Your task to perform on an android device: Open battery settings Image 0: 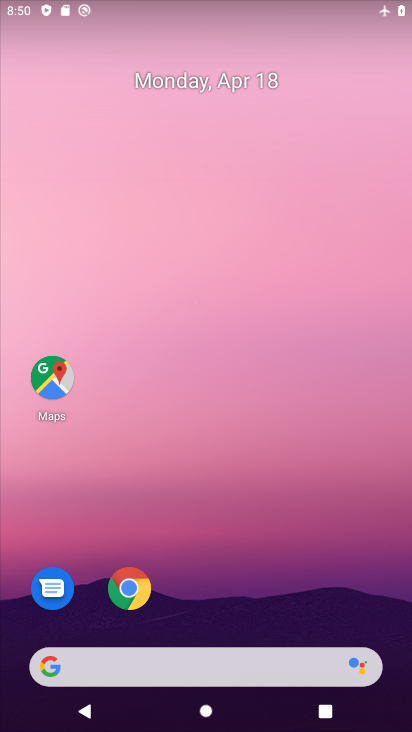
Step 0: drag from (240, 596) to (293, 208)
Your task to perform on an android device: Open battery settings Image 1: 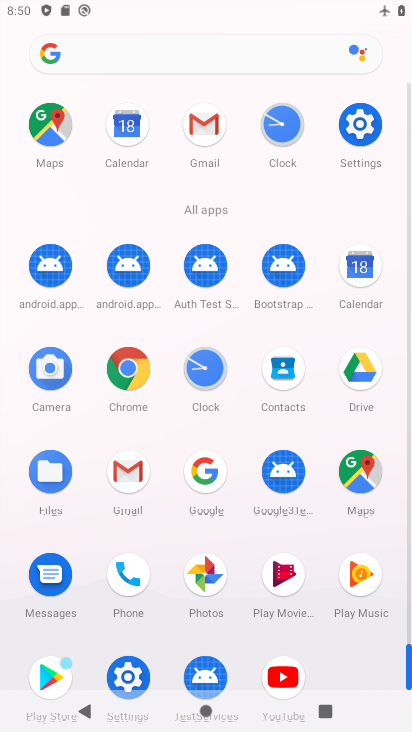
Step 1: click (368, 128)
Your task to perform on an android device: Open battery settings Image 2: 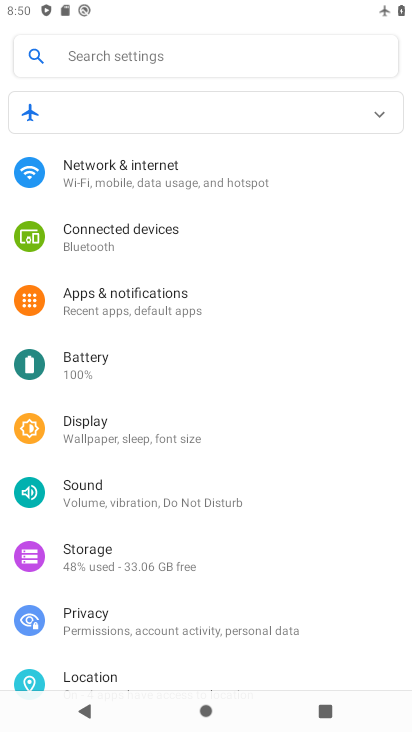
Step 2: click (112, 359)
Your task to perform on an android device: Open battery settings Image 3: 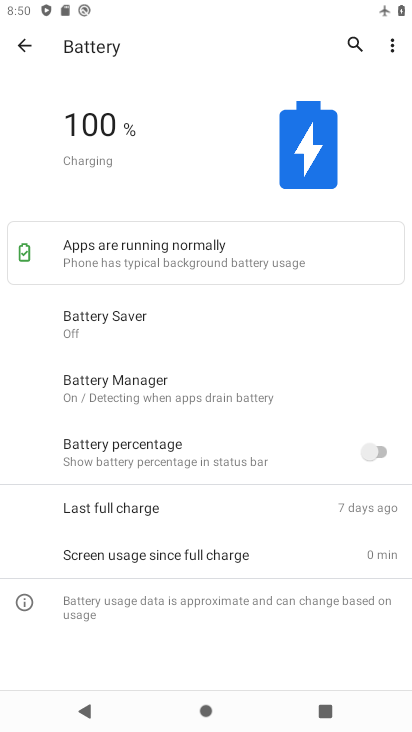
Step 3: task complete